Your task to perform on an android device: When is my next meeting? Image 0: 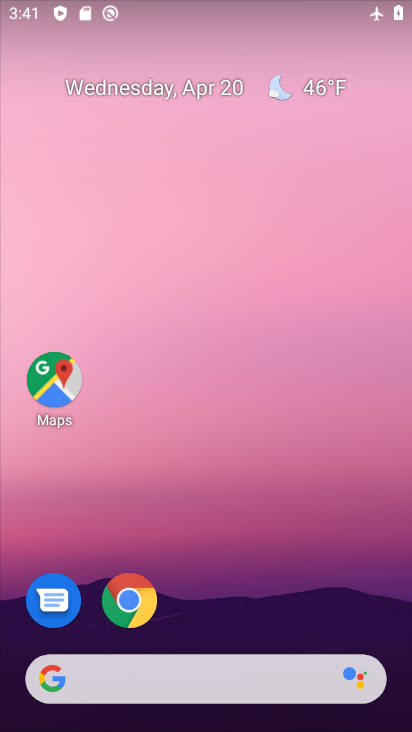
Step 0: drag from (226, 419) to (206, 34)
Your task to perform on an android device: When is my next meeting? Image 1: 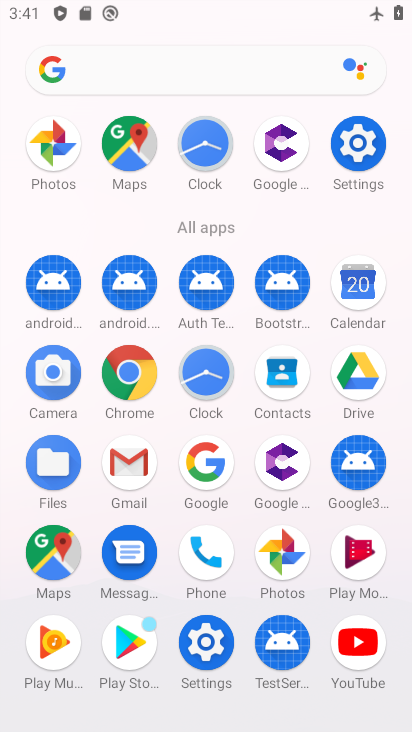
Step 1: click (357, 152)
Your task to perform on an android device: When is my next meeting? Image 2: 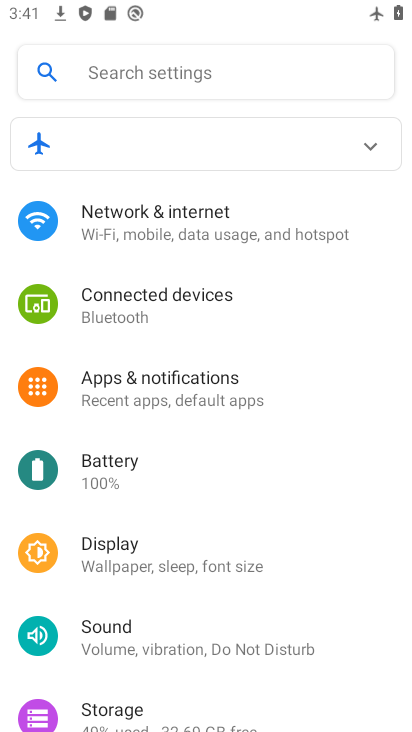
Step 2: press home button
Your task to perform on an android device: When is my next meeting? Image 3: 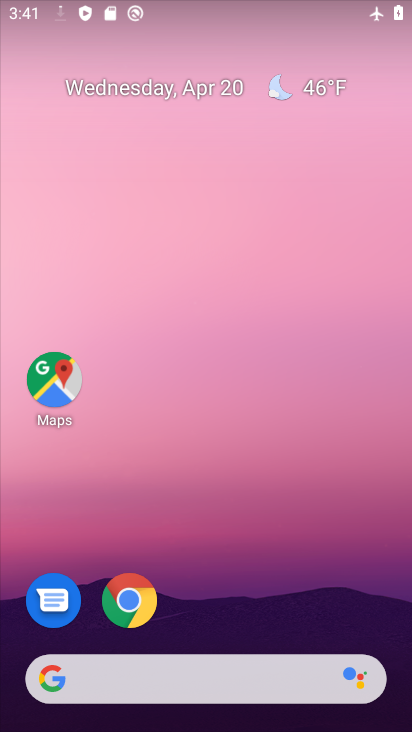
Step 3: drag from (215, 570) to (187, 66)
Your task to perform on an android device: When is my next meeting? Image 4: 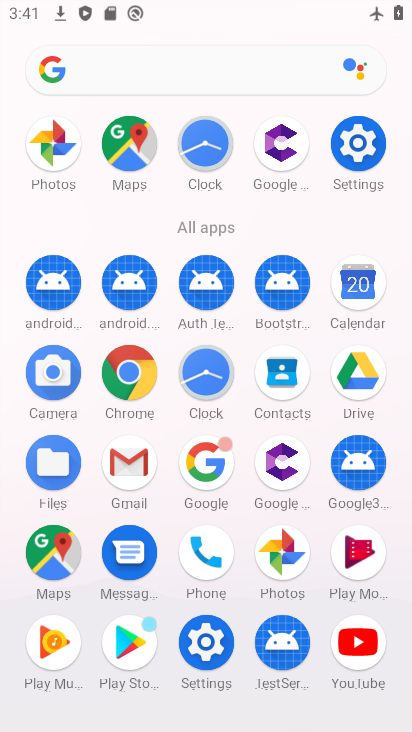
Step 4: click (347, 286)
Your task to perform on an android device: When is my next meeting? Image 5: 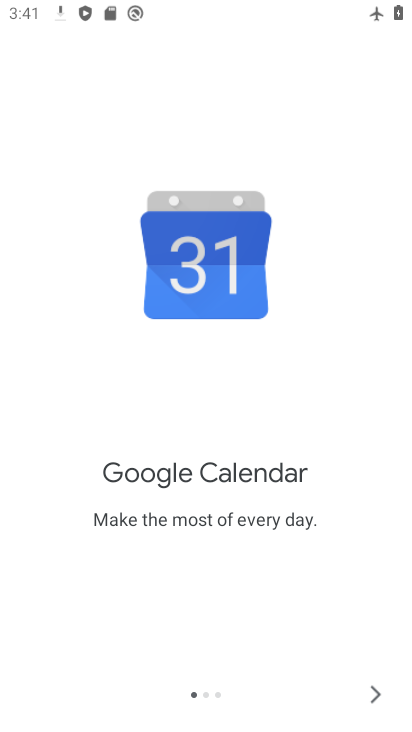
Step 5: click (368, 696)
Your task to perform on an android device: When is my next meeting? Image 6: 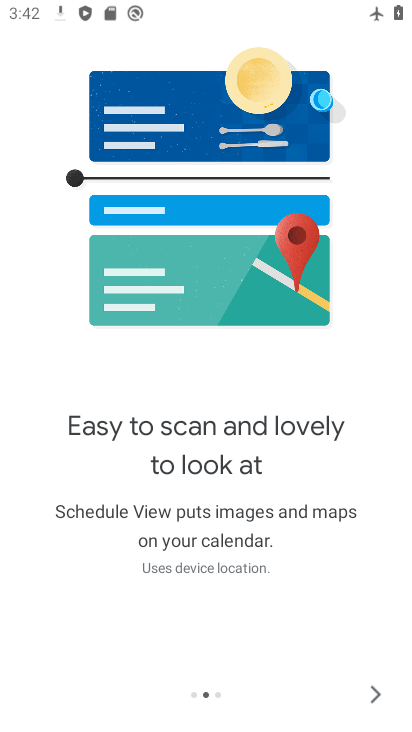
Step 6: click (369, 692)
Your task to perform on an android device: When is my next meeting? Image 7: 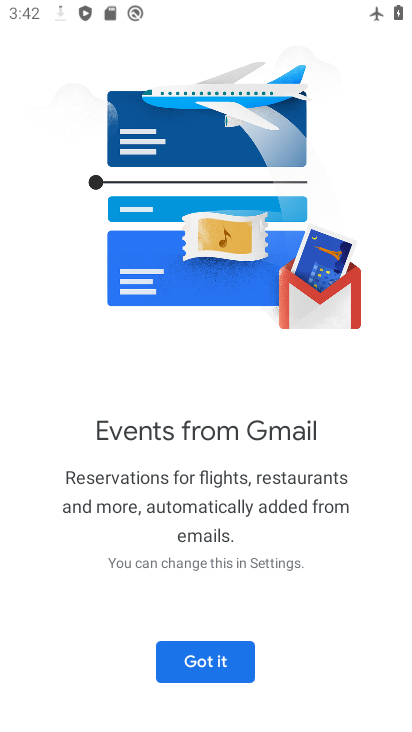
Step 7: click (225, 659)
Your task to perform on an android device: When is my next meeting? Image 8: 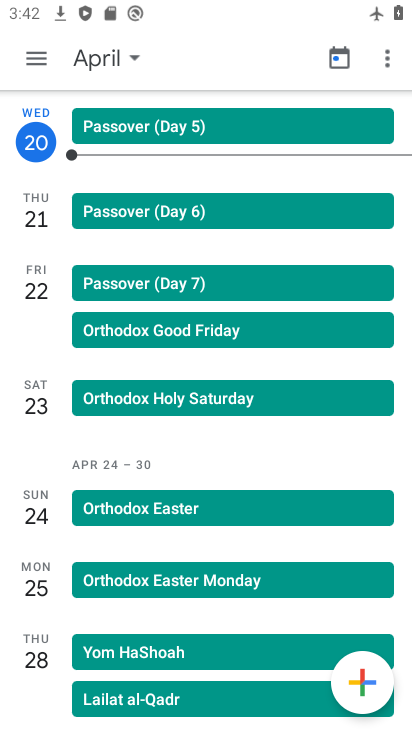
Step 8: task complete